Your task to perform on an android device: Open calendar and show me the second week of next month Image 0: 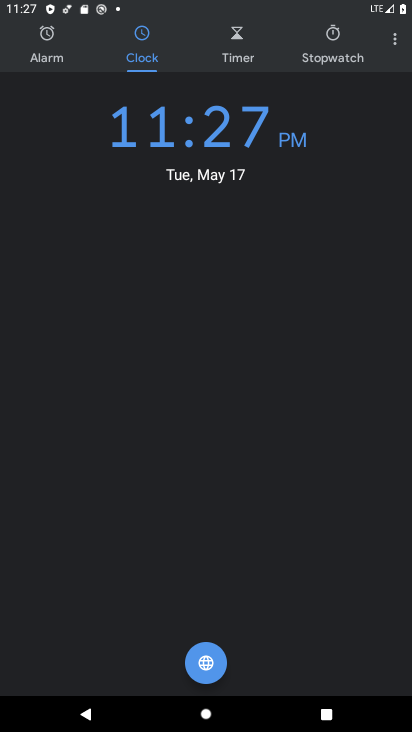
Step 0: press home button
Your task to perform on an android device: Open calendar and show me the second week of next month Image 1: 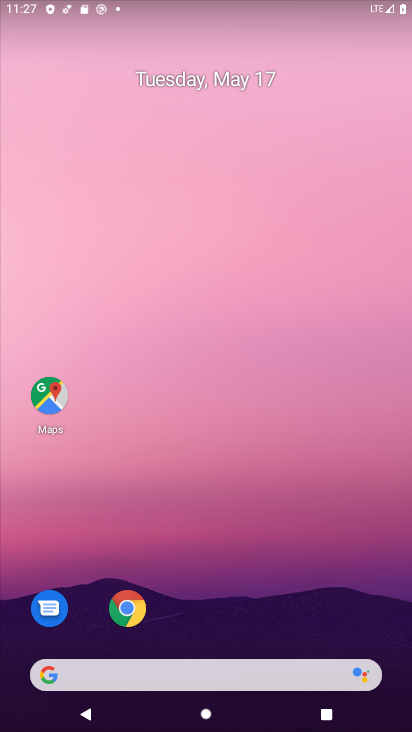
Step 1: drag from (298, 515) to (182, 0)
Your task to perform on an android device: Open calendar and show me the second week of next month Image 2: 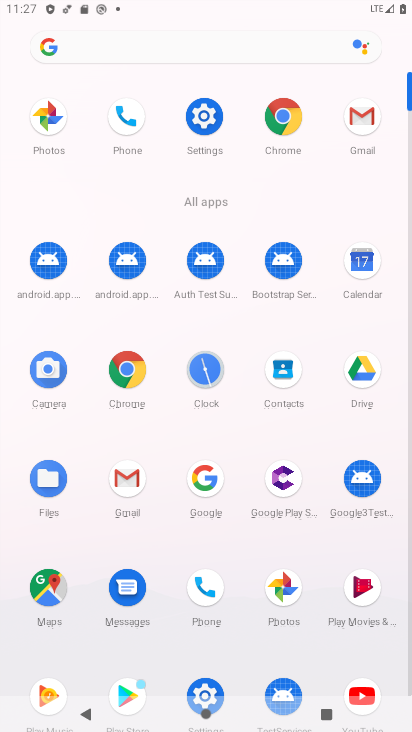
Step 2: click (368, 263)
Your task to perform on an android device: Open calendar and show me the second week of next month Image 3: 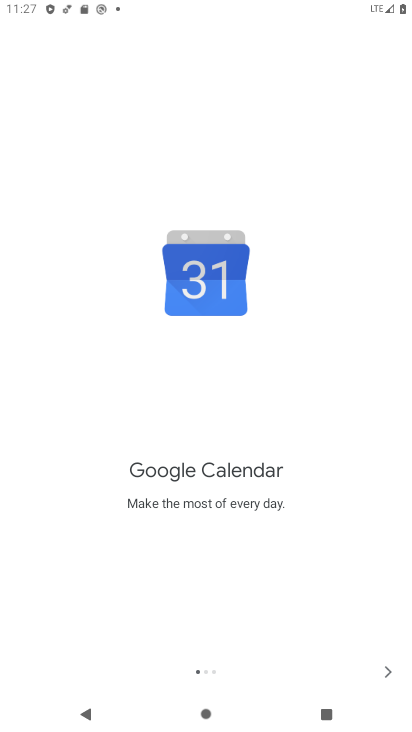
Step 3: click (391, 675)
Your task to perform on an android device: Open calendar and show me the second week of next month Image 4: 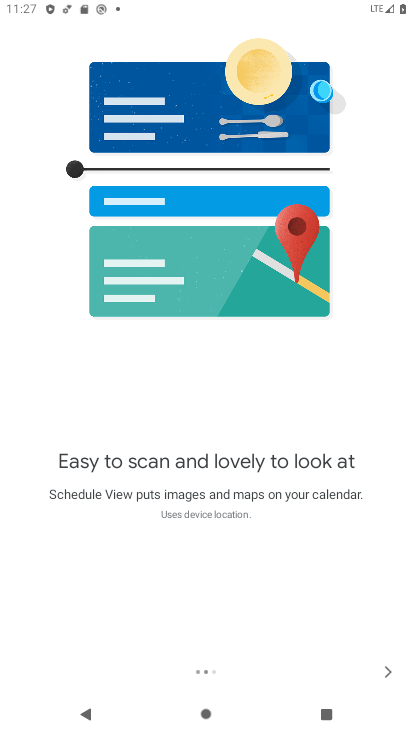
Step 4: click (382, 666)
Your task to perform on an android device: Open calendar and show me the second week of next month Image 5: 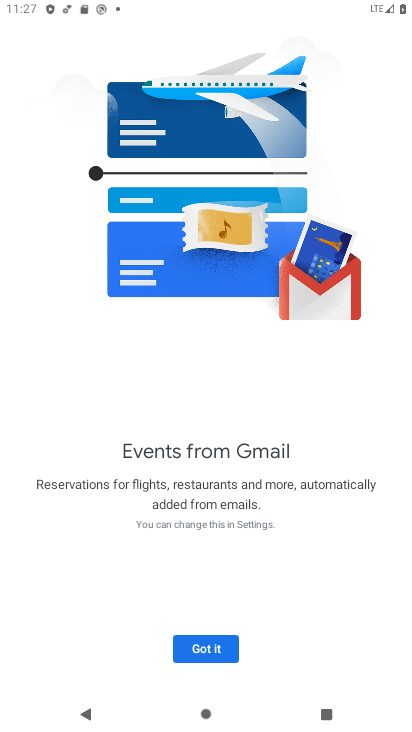
Step 5: click (190, 629)
Your task to perform on an android device: Open calendar and show me the second week of next month Image 6: 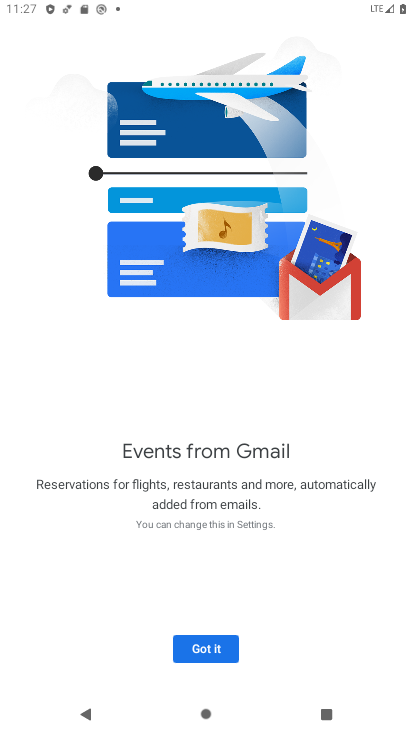
Step 6: click (206, 644)
Your task to perform on an android device: Open calendar and show me the second week of next month Image 7: 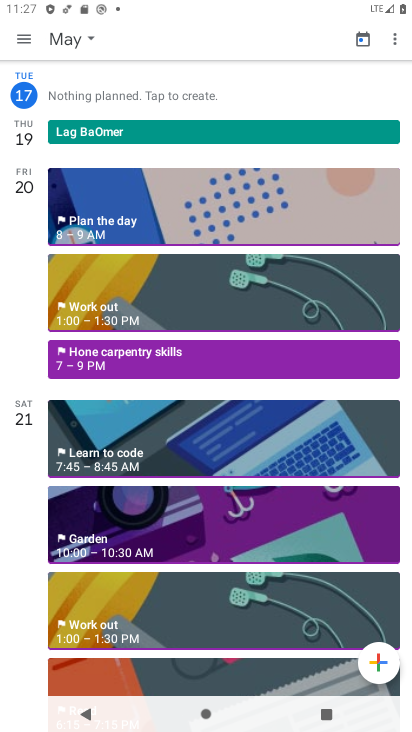
Step 7: click (28, 35)
Your task to perform on an android device: Open calendar and show me the second week of next month Image 8: 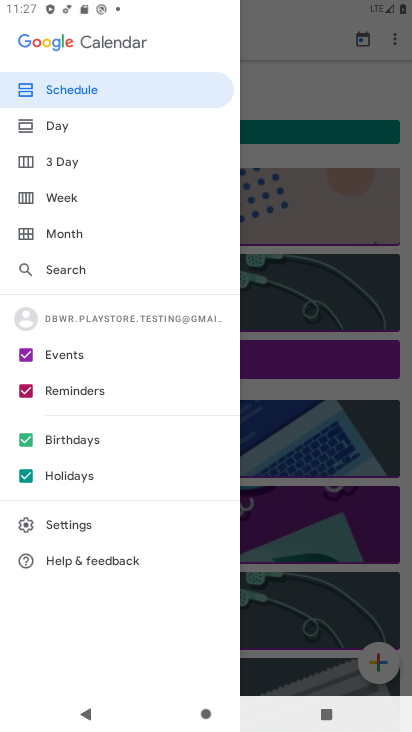
Step 8: click (70, 198)
Your task to perform on an android device: Open calendar and show me the second week of next month Image 9: 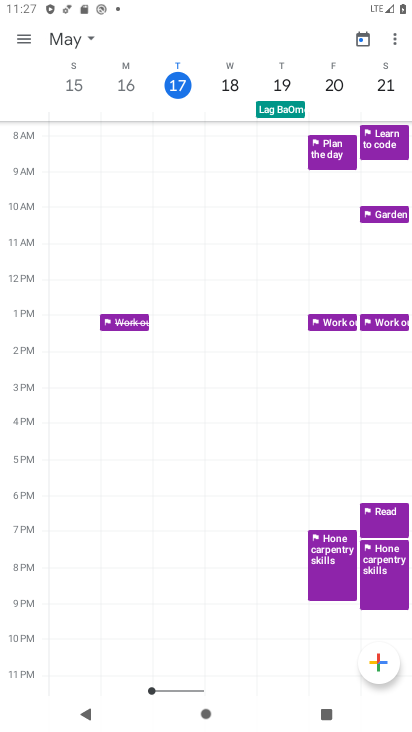
Step 9: click (87, 40)
Your task to perform on an android device: Open calendar and show me the second week of next month Image 10: 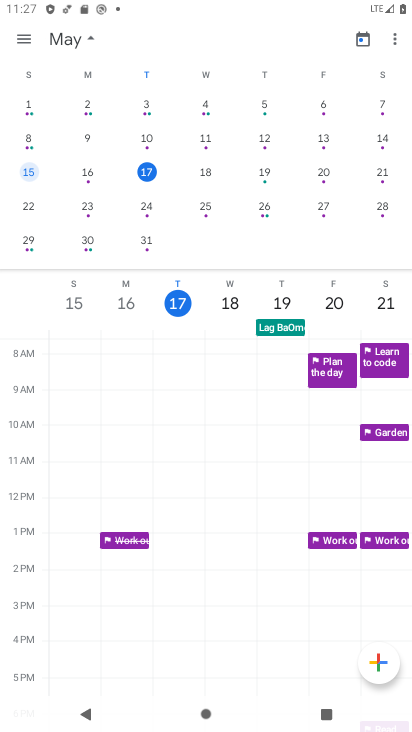
Step 10: drag from (352, 196) to (3, 215)
Your task to perform on an android device: Open calendar and show me the second week of next month Image 11: 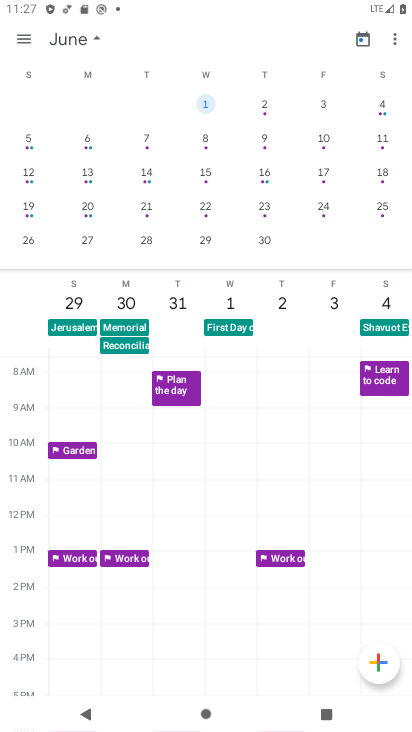
Step 11: click (30, 149)
Your task to perform on an android device: Open calendar and show me the second week of next month Image 12: 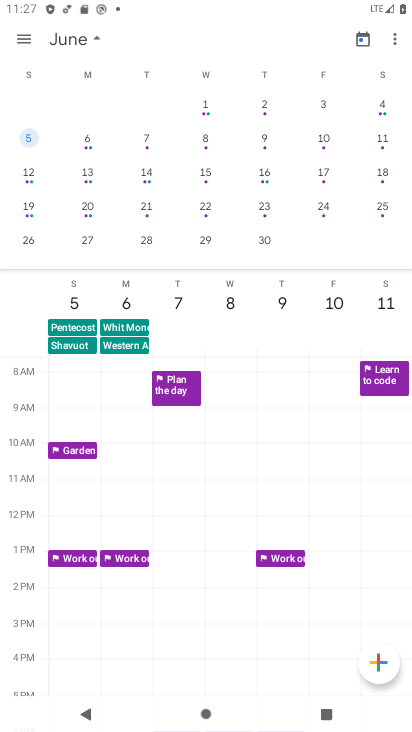
Step 12: task complete